Your task to perform on an android device: Search for Mexican restaurants on Maps Image 0: 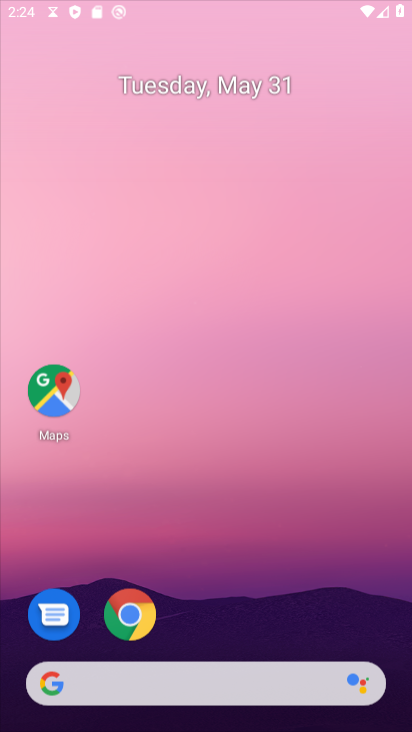
Step 0: click (258, 18)
Your task to perform on an android device: Search for Mexican restaurants on Maps Image 1: 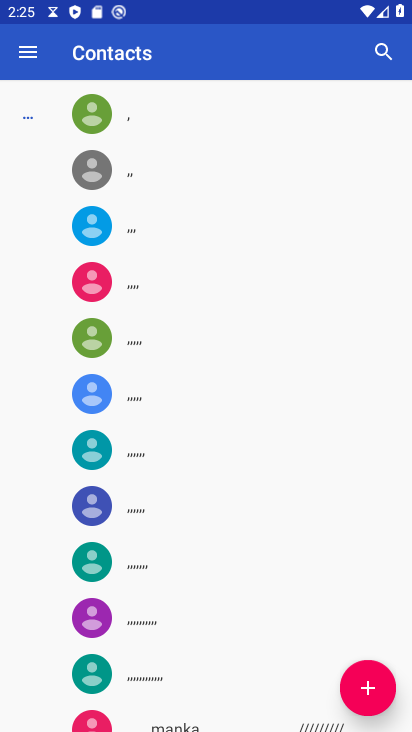
Step 1: press back button
Your task to perform on an android device: Search for Mexican restaurants on Maps Image 2: 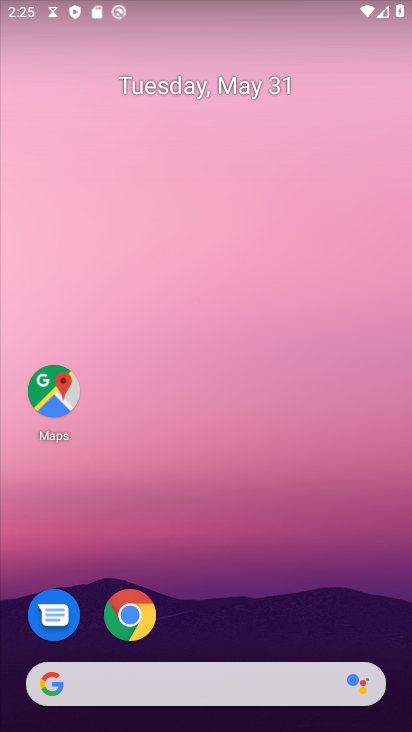
Step 2: drag from (227, 629) to (181, 50)
Your task to perform on an android device: Search for Mexican restaurants on Maps Image 3: 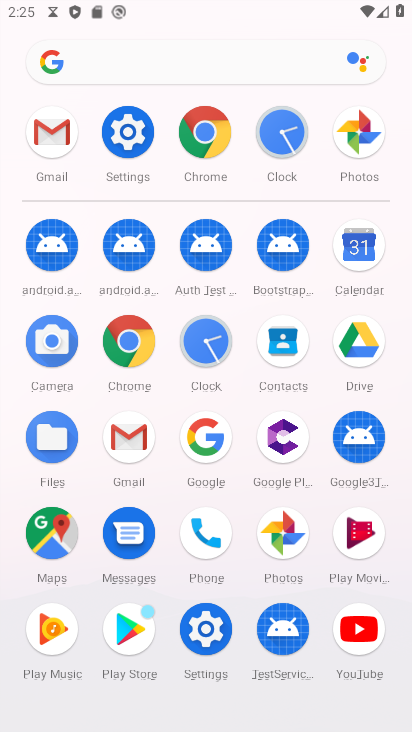
Step 3: click (51, 542)
Your task to perform on an android device: Search for Mexican restaurants on Maps Image 4: 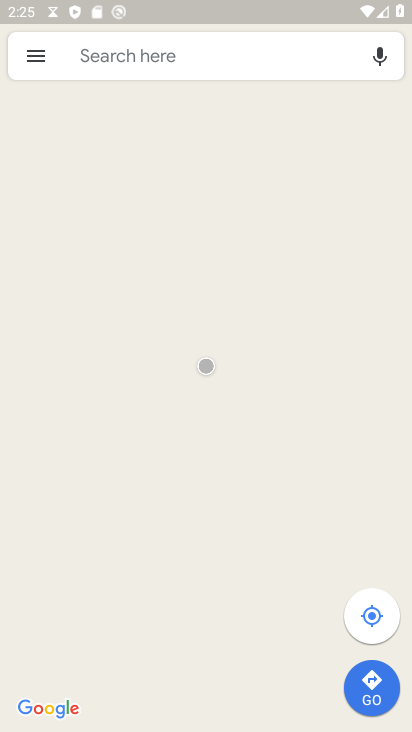
Step 4: click (93, 51)
Your task to perform on an android device: Search for Mexican restaurants on Maps Image 5: 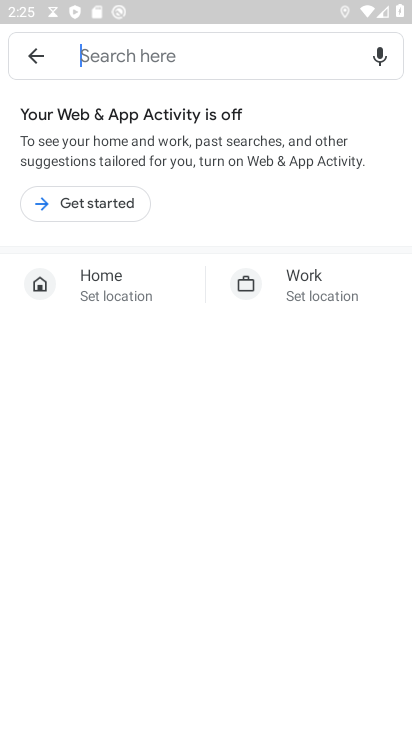
Step 5: click (78, 51)
Your task to perform on an android device: Search for Mexican restaurants on Maps Image 6: 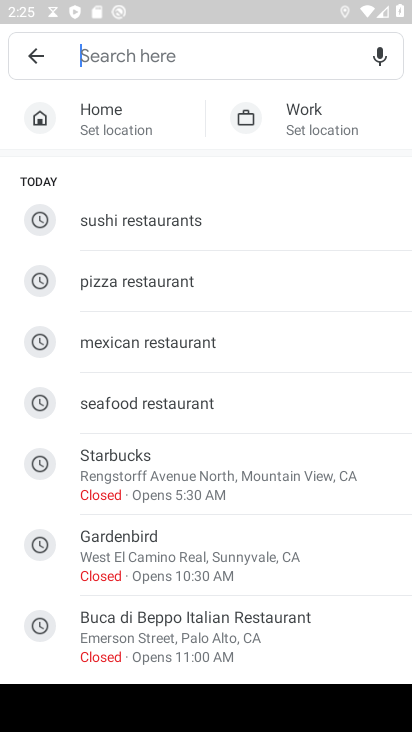
Step 6: click (118, 327)
Your task to perform on an android device: Search for Mexican restaurants on Maps Image 7: 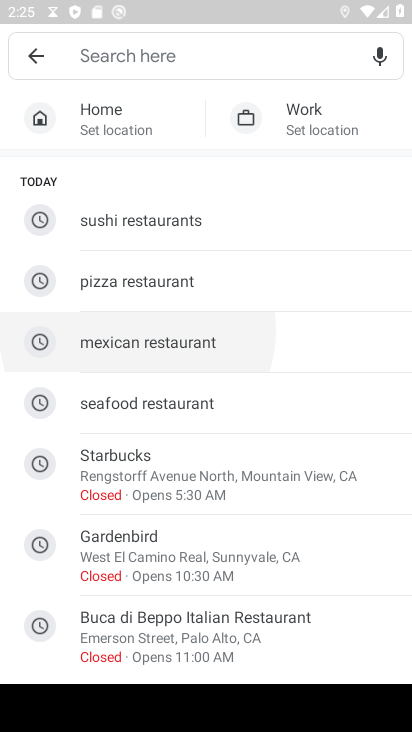
Step 7: click (118, 330)
Your task to perform on an android device: Search for Mexican restaurants on Maps Image 8: 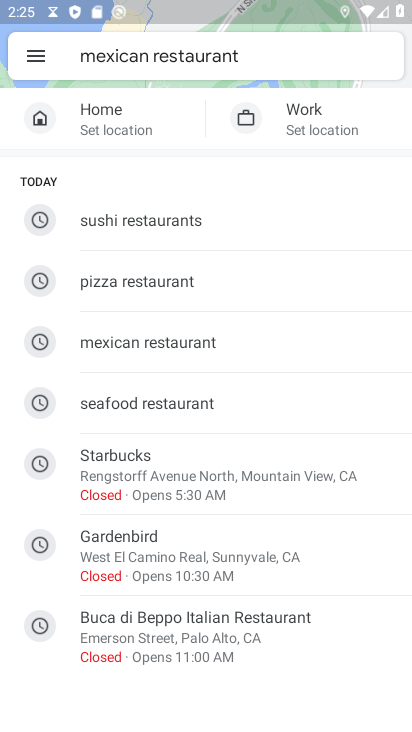
Step 8: click (113, 345)
Your task to perform on an android device: Search for Mexican restaurants on Maps Image 9: 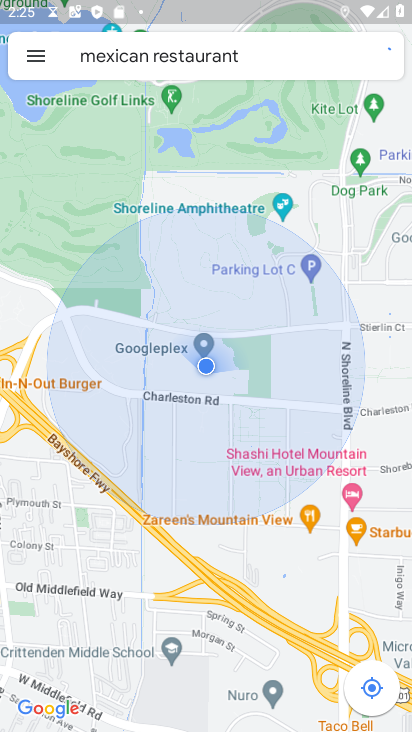
Step 9: task complete